Your task to perform on an android device: move an email to a new category in the gmail app Image 0: 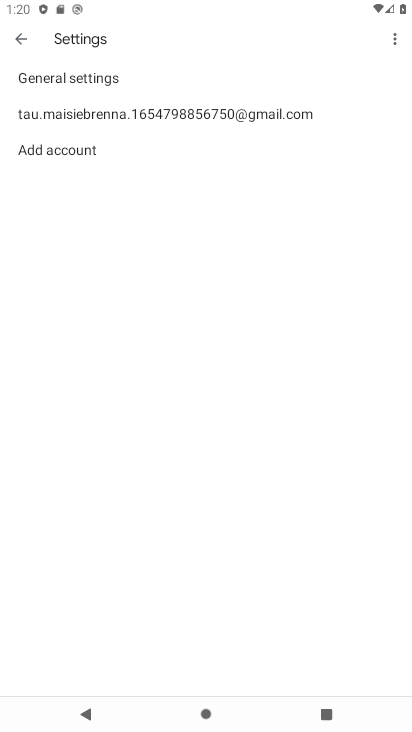
Step 0: press home button
Your task to perform on an android device: move an email to a new category in the gmail app Image 1: 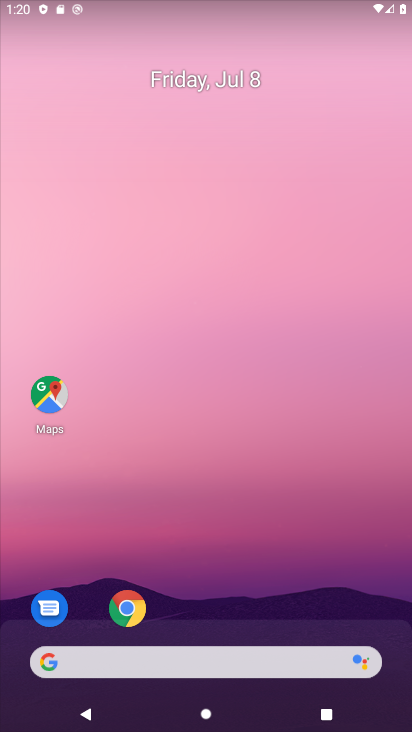
Step 1: drag from (165, 653) to (254, 202)
Your task to perform on an android device: move an email to a new category in the gmail app Image 2: 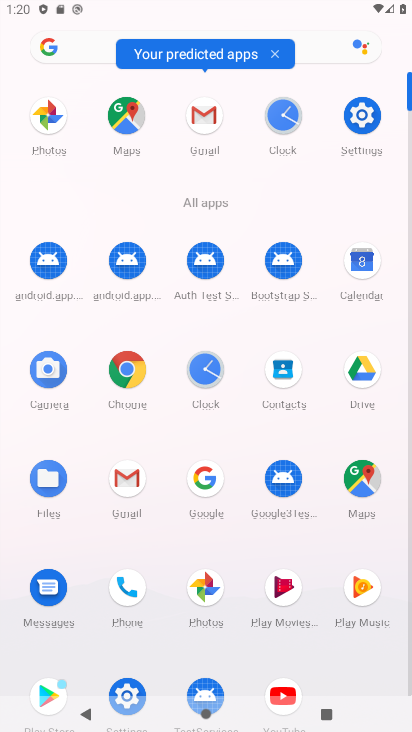
Step 2: click (120, 484)
Your task to perform on an android device: move an email to a new category in the gmail app Image 3: 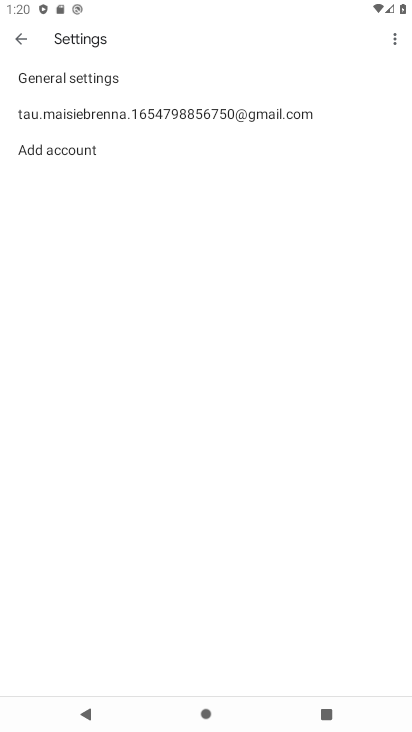
Step 3: press back button
Your task to perform on an android device: move an email to a new category in the gmail app Image 4: 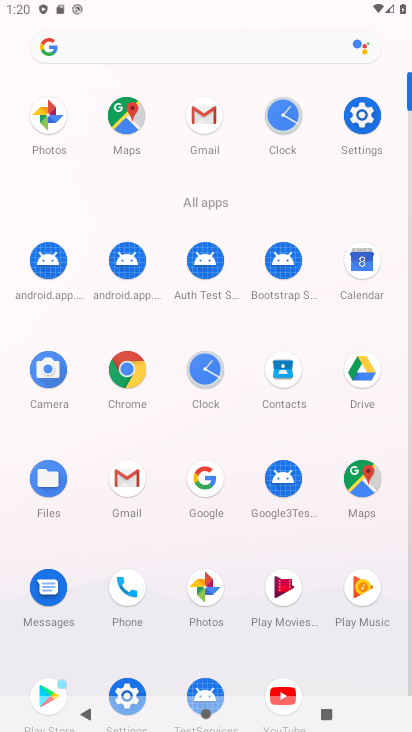
Step 4: click (133, 487)
Your task to perform on an android device: move an email to a new category in the gmail app Image 5: 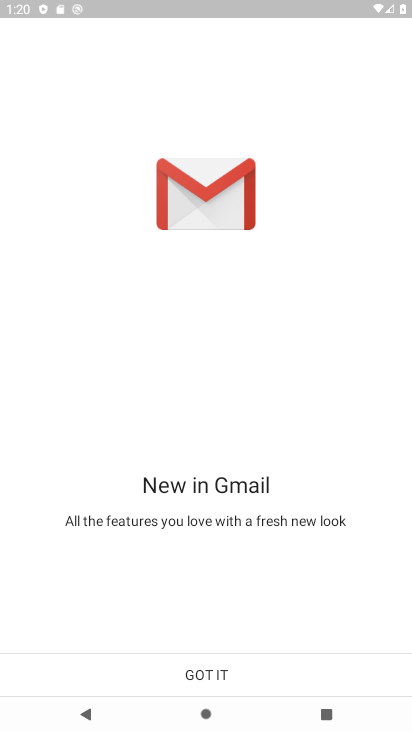
Step 5: click (182, 673)
Your task to perform on an android device: move an email to a new category in the gmail app Image 6: 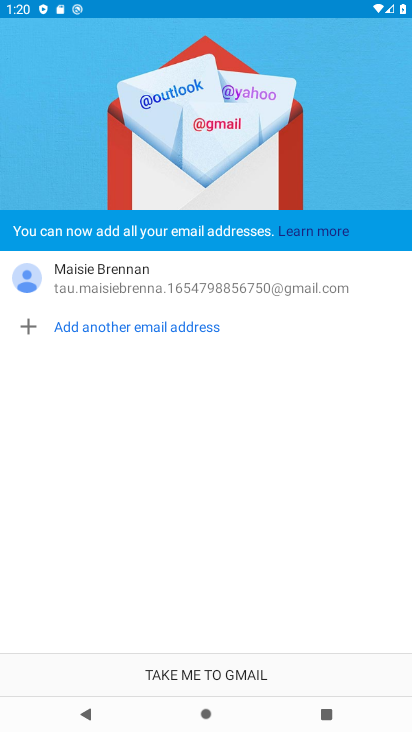
Step 6: click (246, 672)
Your task to perform on an android device: move an email to a new category in the gmail app Image 7: 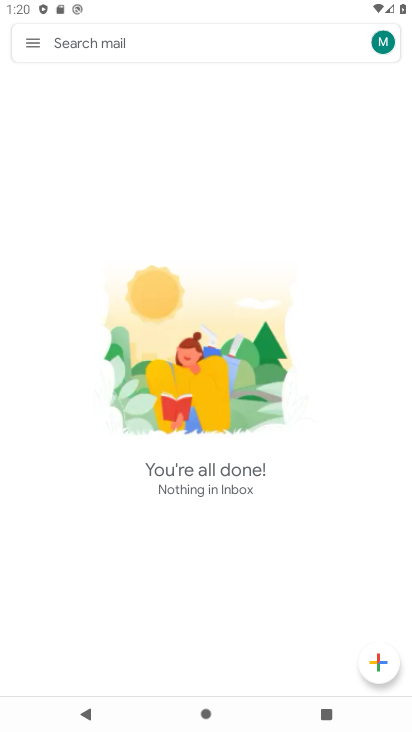
Step 7: task complete